Your task to perform on an android device: Open Chrome and go to settings Image 0: 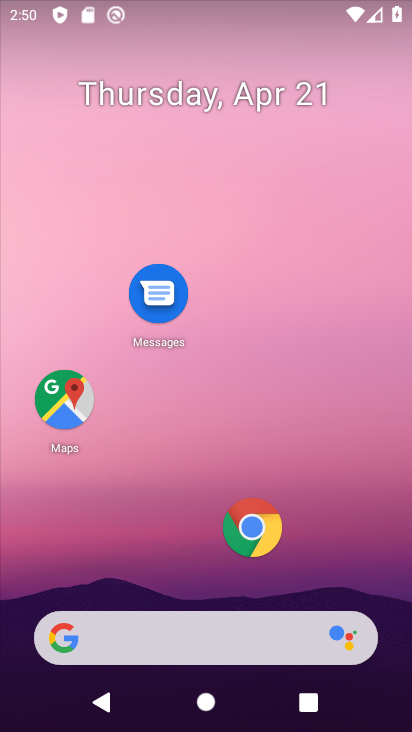
Step 0: click (256, 536)
Your task to perform on an android device: Open Chrome and go to settings Image 1: 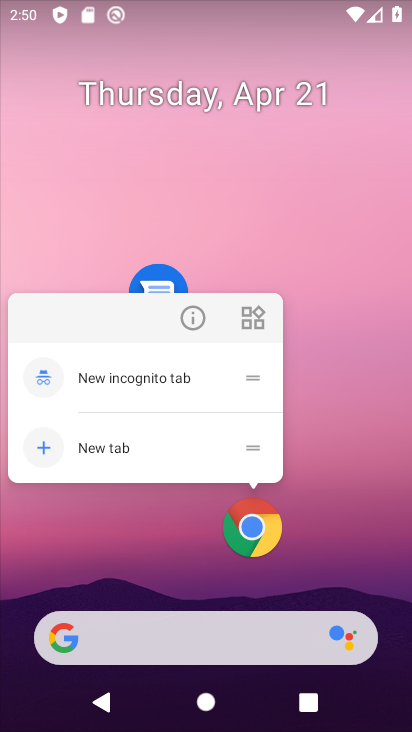
Step 1: click (256, 536)
Your task to perform on an android device: Open Chrome and go to settings Image 2: 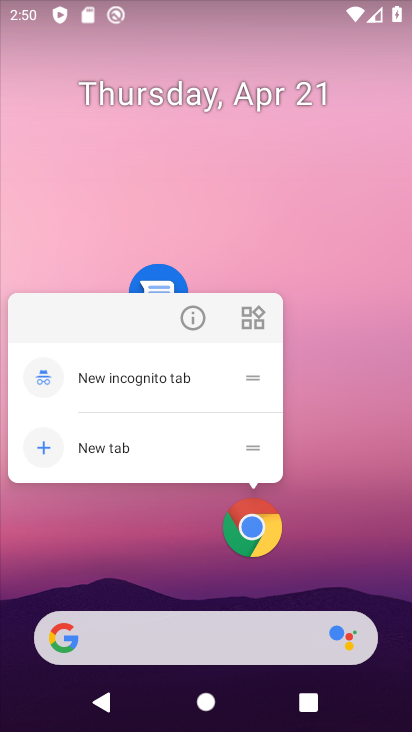
Step 2: click (251, 527)
Your task to perform on an android device: Open Chrome and go to settings Image 3: 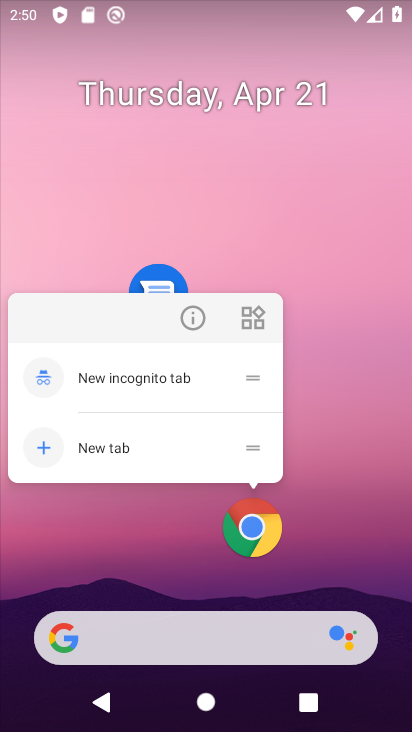
Step 3: click (251, 527)
Your task to perform on an android device: Open Chrome and go to settings Image 4: 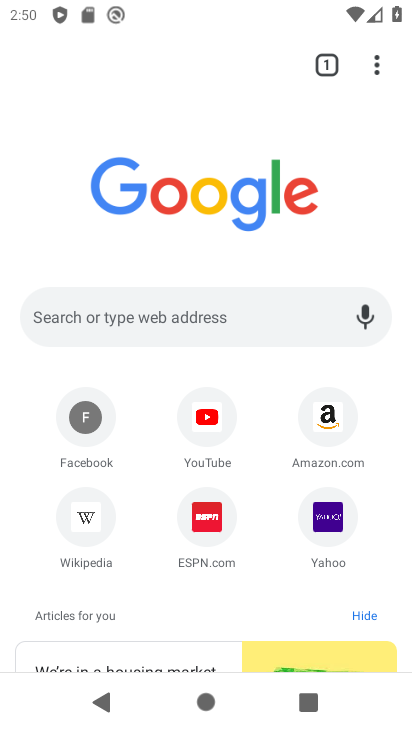
Step 4: click (379, 64)
Your task to perform on an android device: Open Chrome and go to settings Image 5: 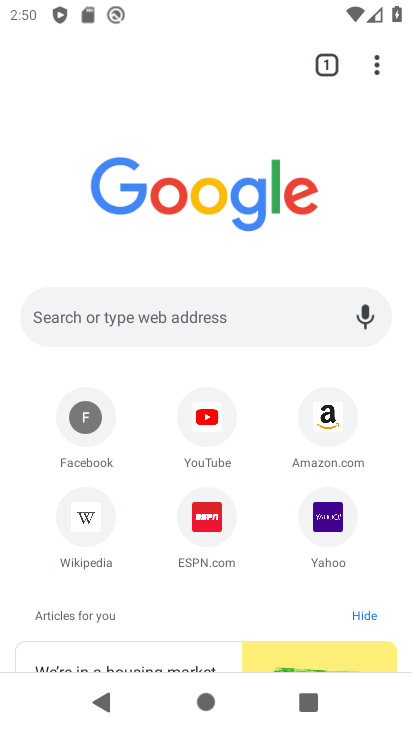
Step 5: click (379, 64)
Your task to perform on an android device: Open Chrome and go to settings Image 6: 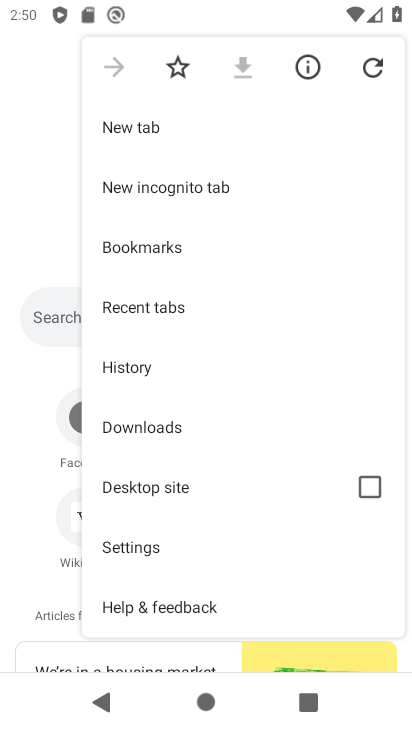
Step 6: click (154, 542)
Your task to perform on an android device: Open Chrome and go to settings Image 7: 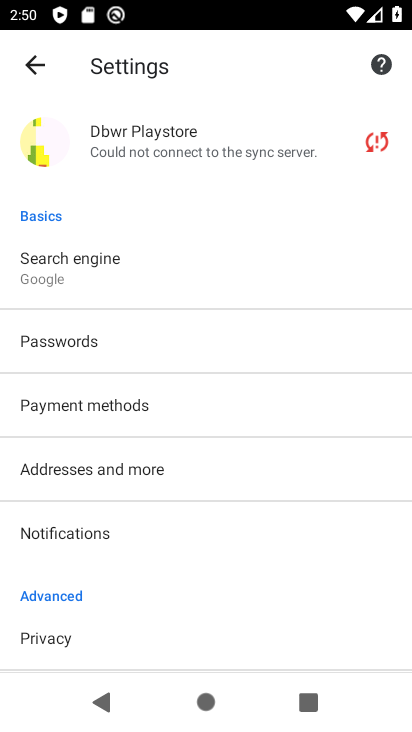
Step 7: drag from (160, 628) to (198, 366)
Your task to perform on an android device: Open Chrome and go to settings Image 8: 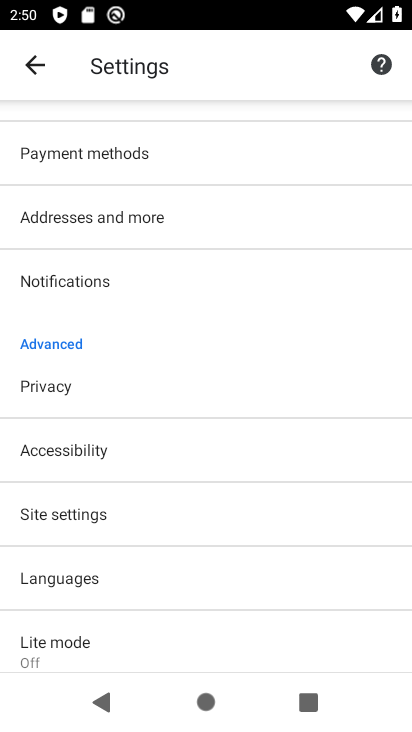
Step 8: click (78, 528)
Your task to perform on an android device: Open Chrome and go to settings Image 9: 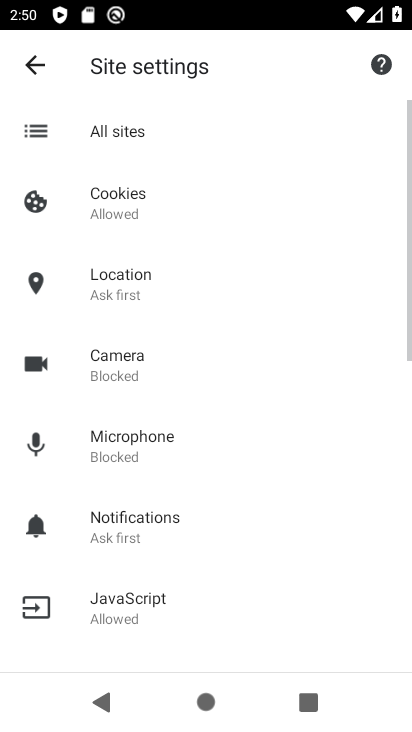
Step 9: task complete